Your task to perform on an android device: turn notification dots off Image 0: 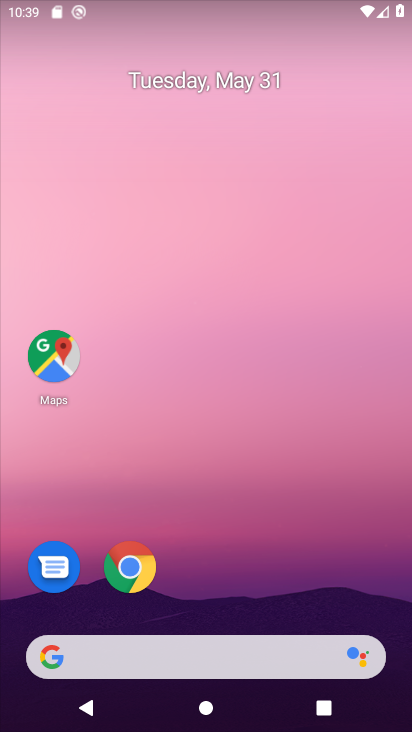
Step 0: drag from (194, 612) to (129, 113)
Your task to perform on an android device: turn notification dots off Image 1: 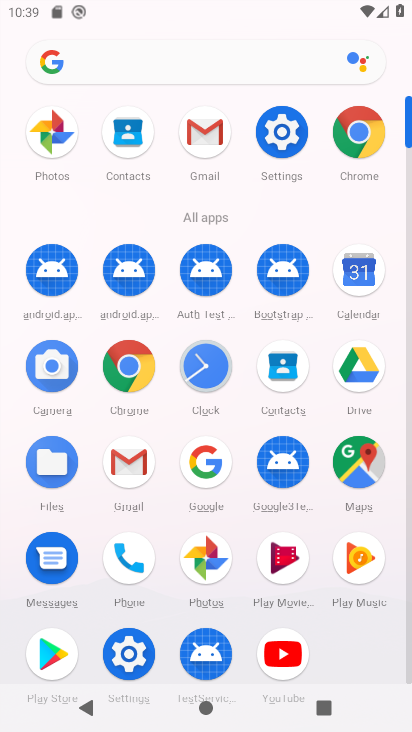
Step 1: click (281, 142)
Your task to perform on an android device: turn notification dots off Image 2: 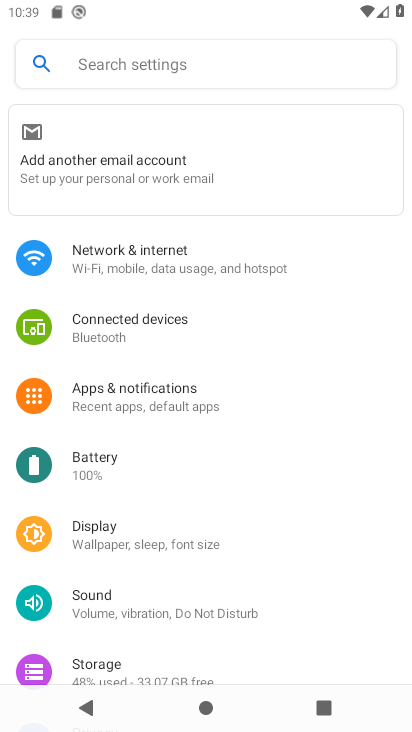
Step 2: click (141, 387)
Your task to perform on an android device: turn notification dots off Image 3: 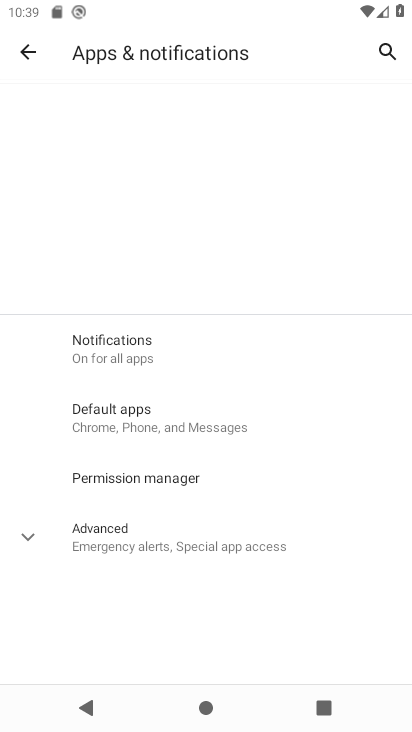
Step 3: click (134, 388)
Your task to perform on an android device: turn notification dots off Image 4: 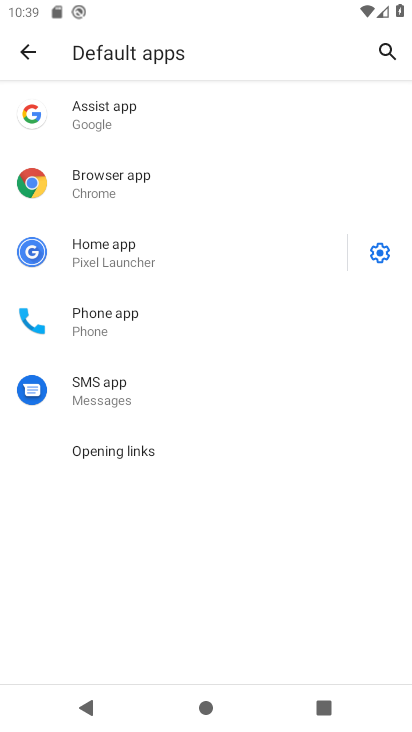
Step 4: task complete